Your task to perform on an android device: What is the recent news? Image 0: 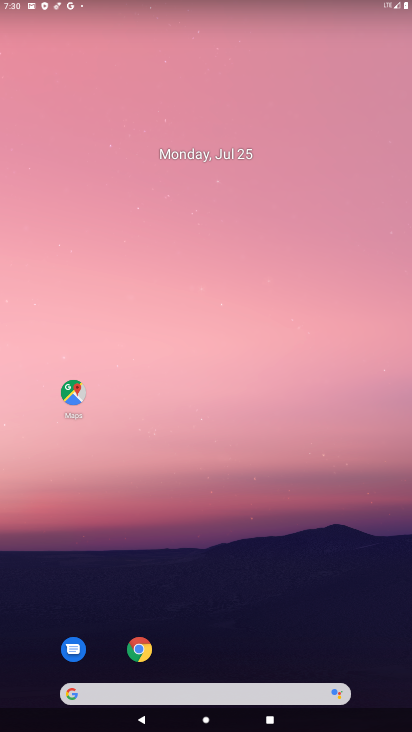
Step 0: click (253, 681)
Your task to perform on an android device: What is the recent news? Image 1: 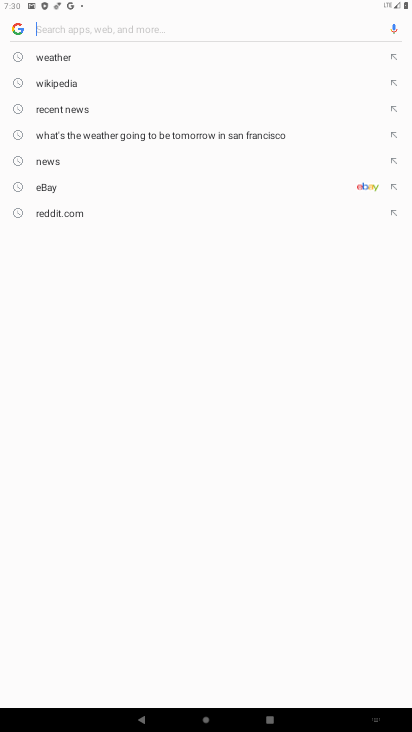
Step 1: click (44, 101)
Your task to perform on an android device: What is the recent news? Image 2: 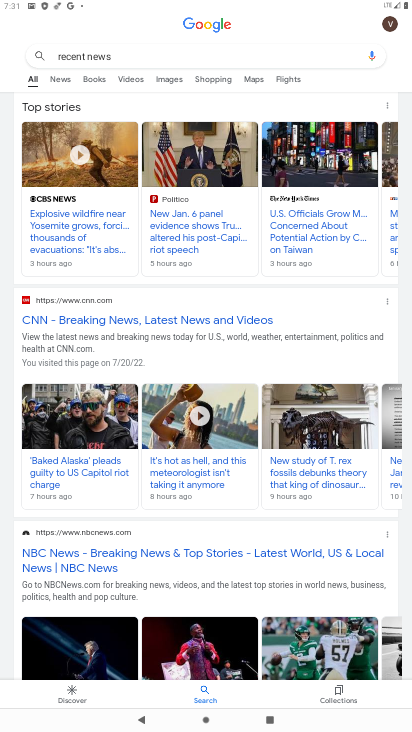
Step 2: task complete